Your task to perform on an android device: Open Google Maps Image 0: 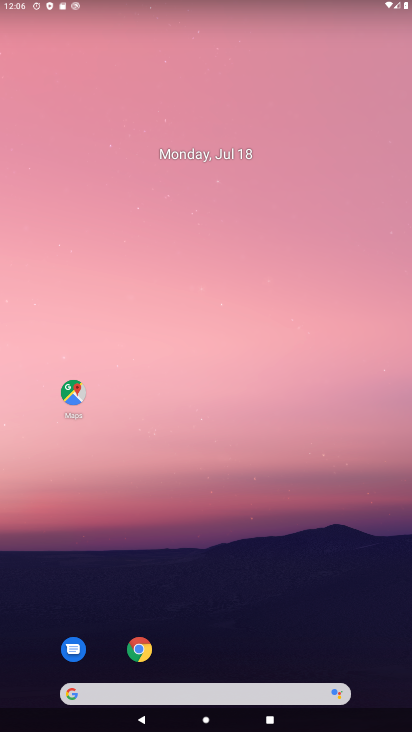
Step 0: drag from (240, 711) to (234, 282)
Your task to perform on an android device: Open Google Maps Image 1: 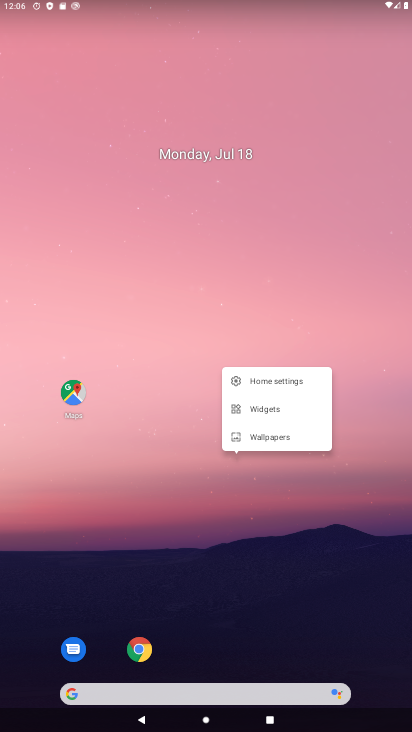
Step 1: click (173, 165)
Your task to perform on an android device: Open Google Maps Image 2: 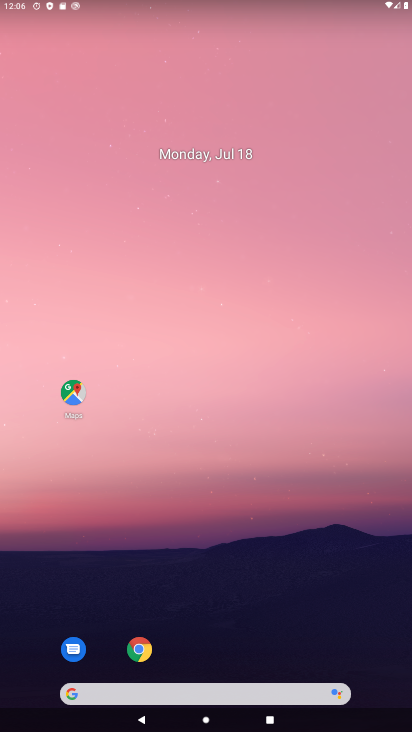
Step 2: drag from (199, 418) to (217, 70)
Your task to perform on an android device: Open Google Maps Image 3: 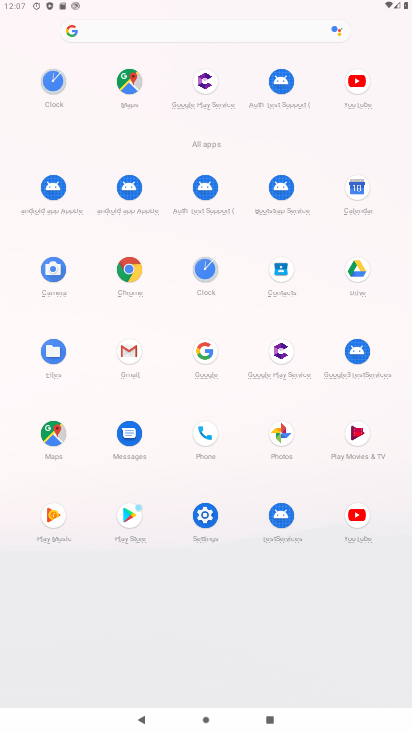
Step 3: click (56, 437)
Your task to perform on an android device: Open Google Maps Image 4: 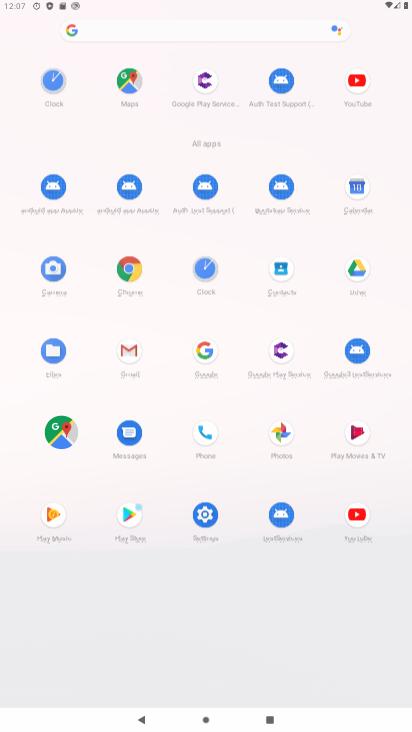
Step 4: click (55, 438)
Your task to perform on an android device: Open Google Maps Image 5: 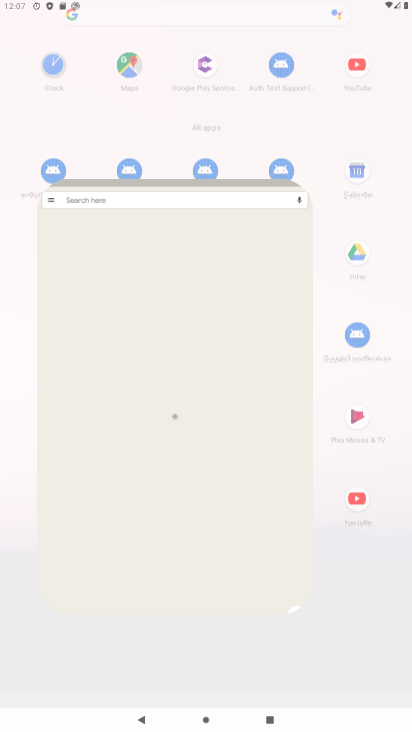
Step 5: click (55, 438)
Your task to perform on an android device: Open Google Maps Image 6: 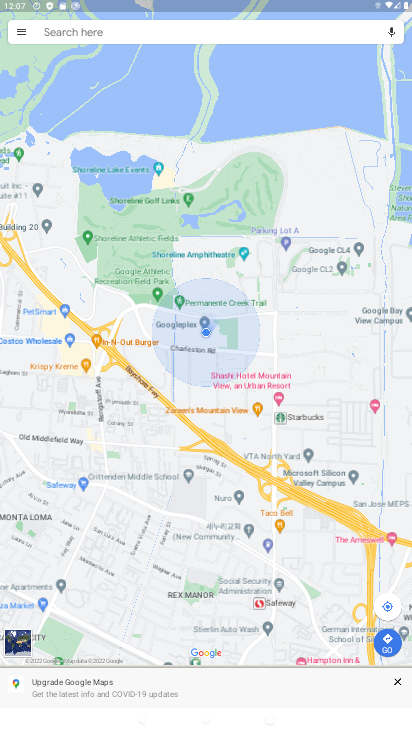
Step 6: task complete